Your task to perform on an android device: What's the weather like in Sydney? Image 0: 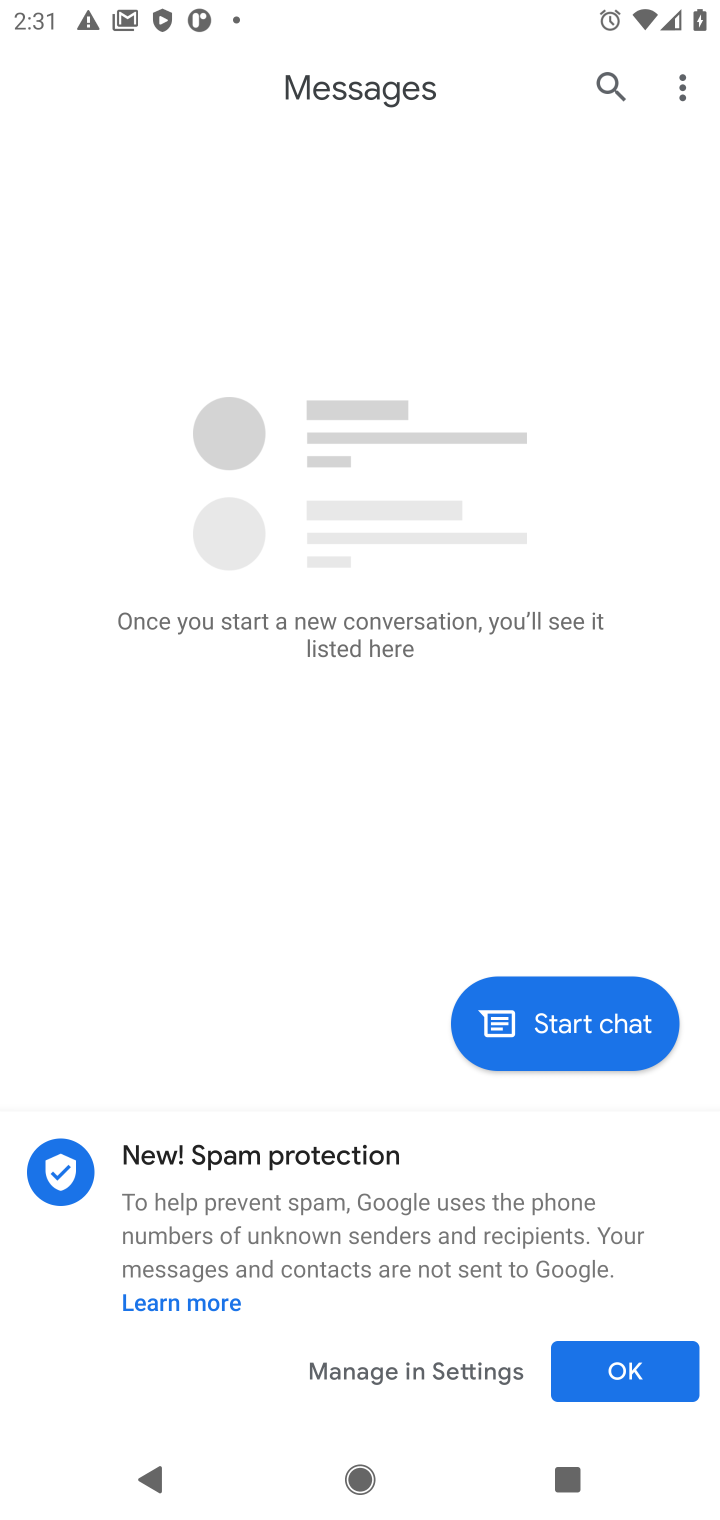
Step 0: press home button
Your task to perform on an android device: What's the weather like in Sydney? Image 1: 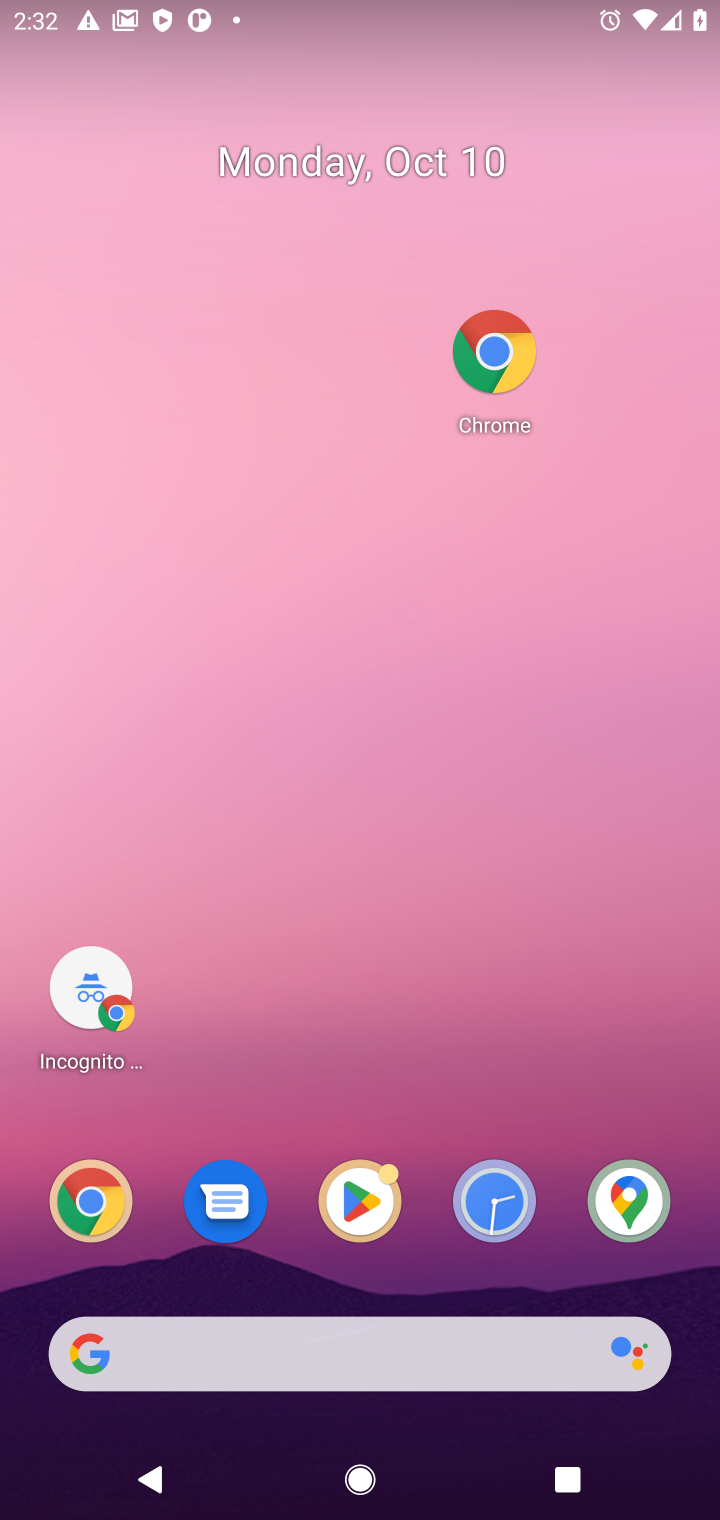
Step 1: click (270, 1347)
Your task to perform on an android device: What's the weather like in Sydney? Image 2: 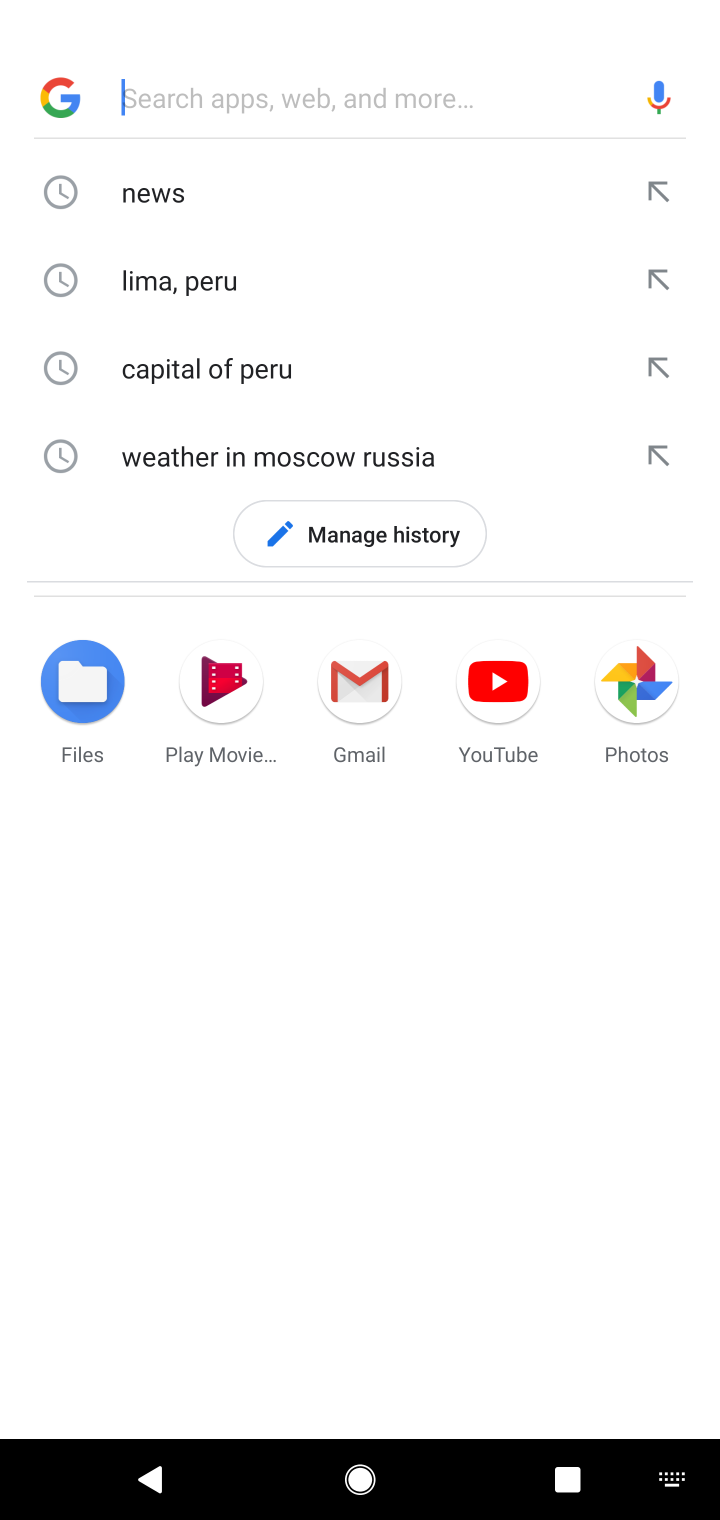
Step 2: click (219, 58)
Your task to perform on an android device: What's the weather like in Sydney? Image 3: 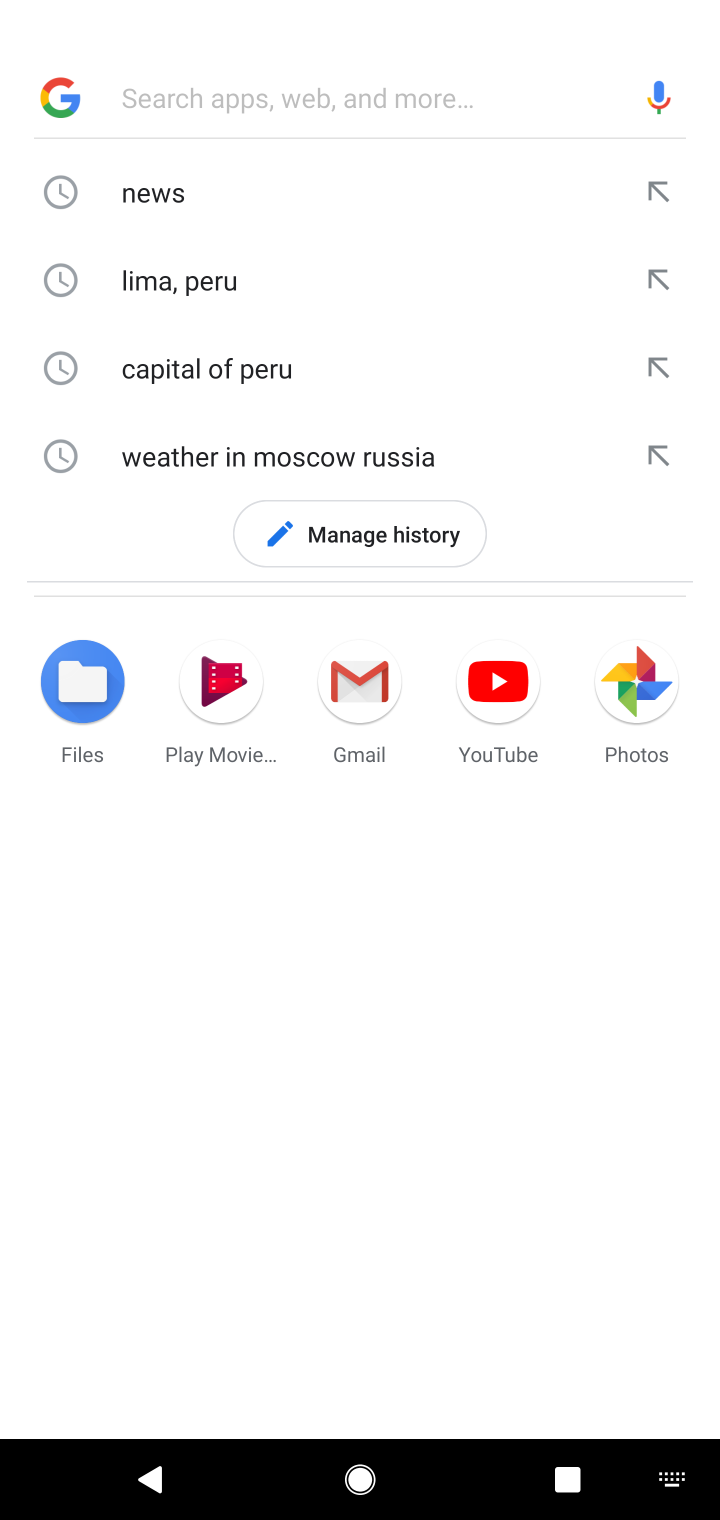
Step 3: type "sydney"
Your task to perform on an android device: What's the weather like in Sydney? Image 4: 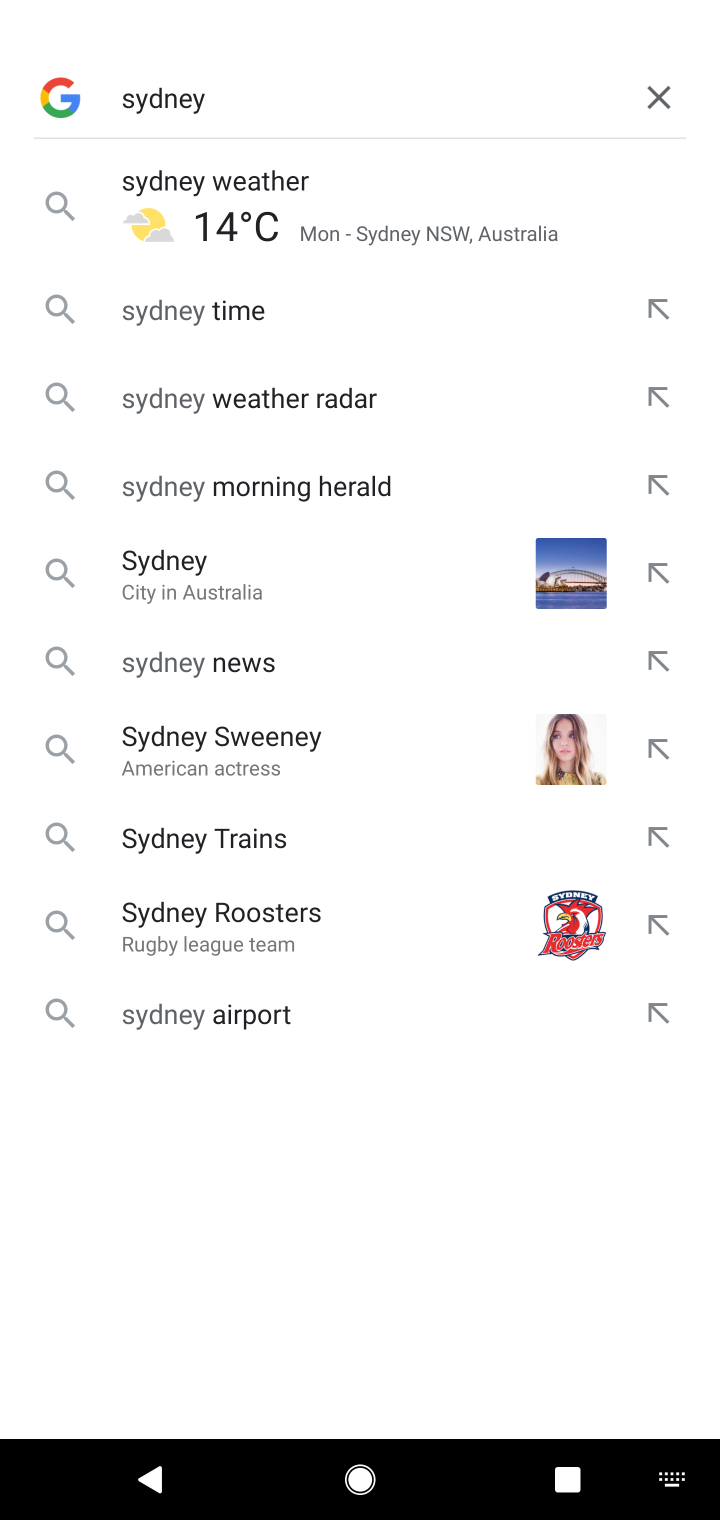
Step 4: click (270, 233)
Your task to perform on an android device: What's the weather like in Sydney? Image 5: 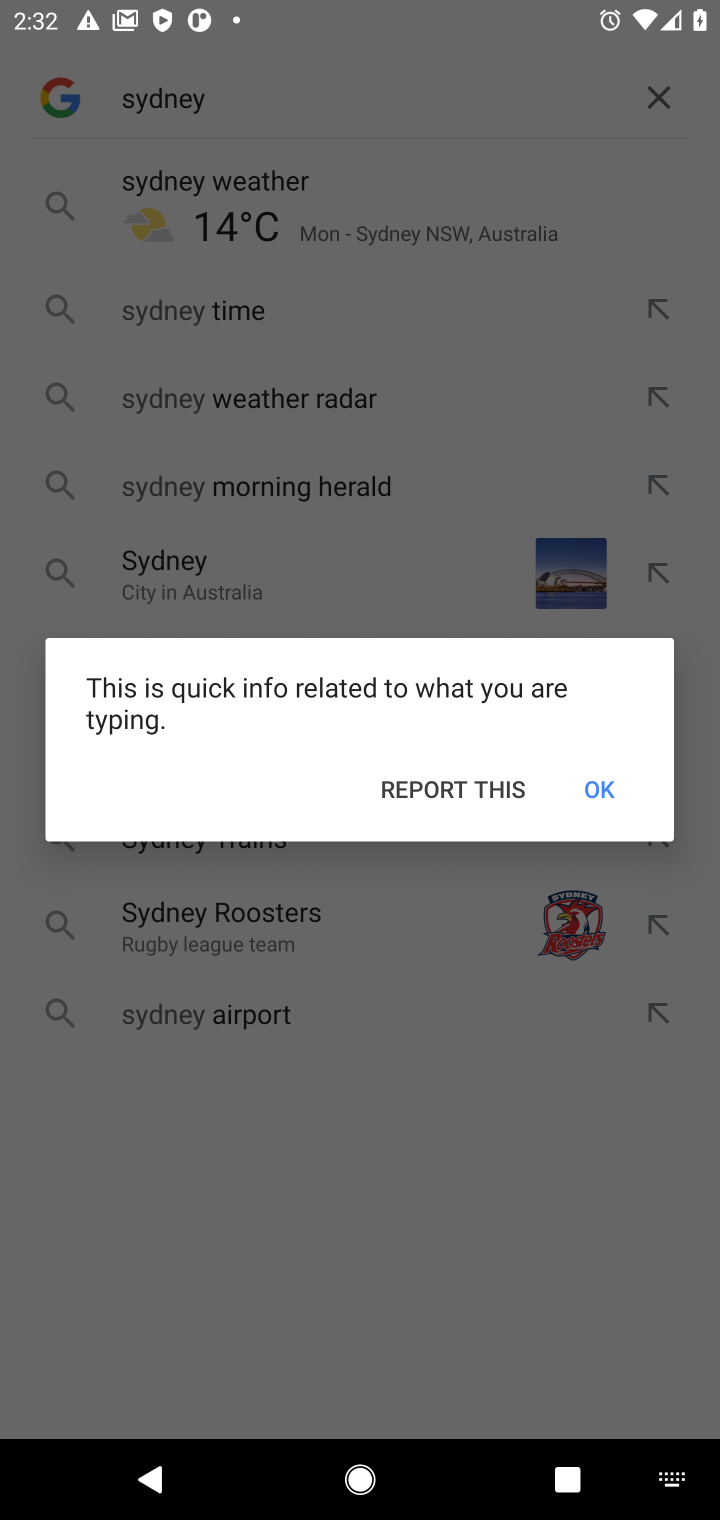
Step 5: click (608, 791)
Your task to perform on an android device: What's the weather like in Sydney? Image 6: 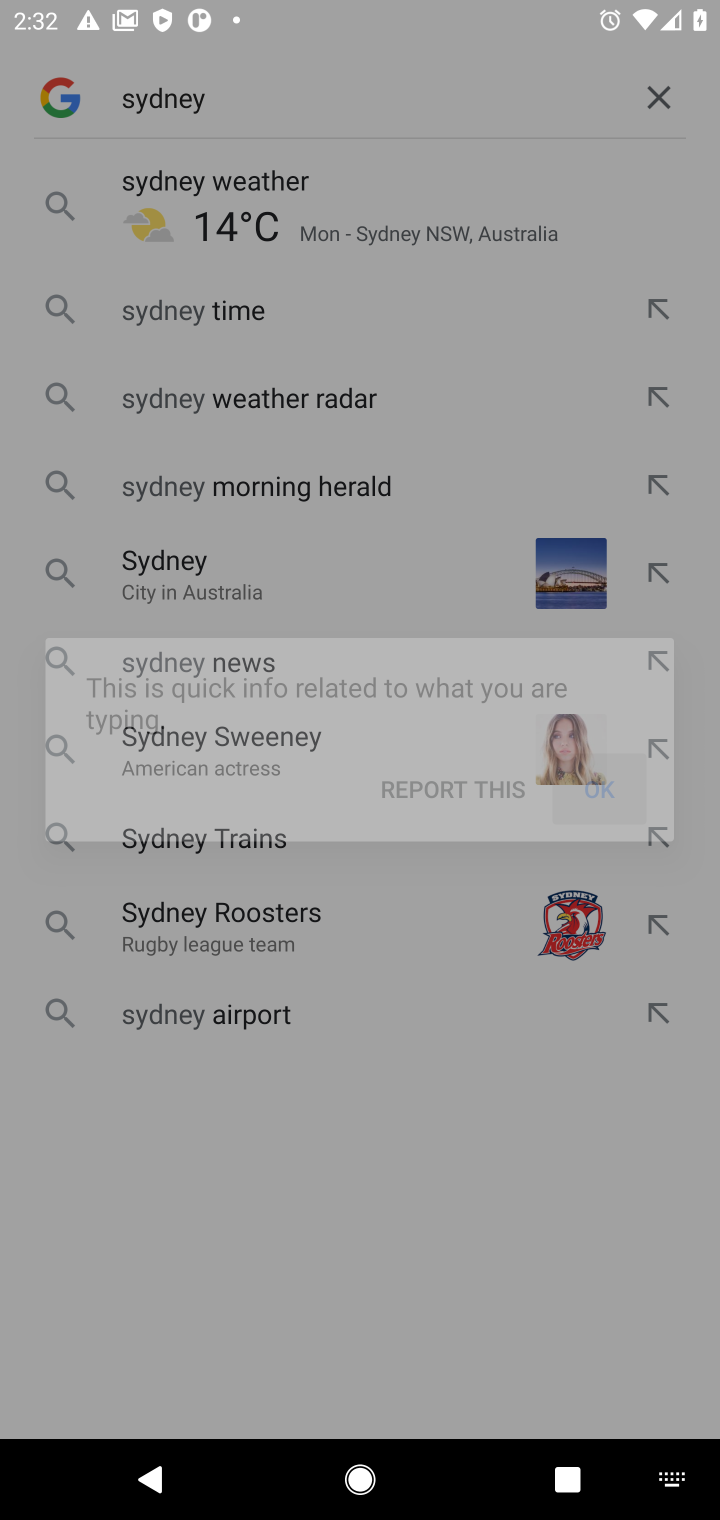
Step 6: click (234, 94)
Your task to perform on an android device: What's the weather like in Sydney? Image 7: 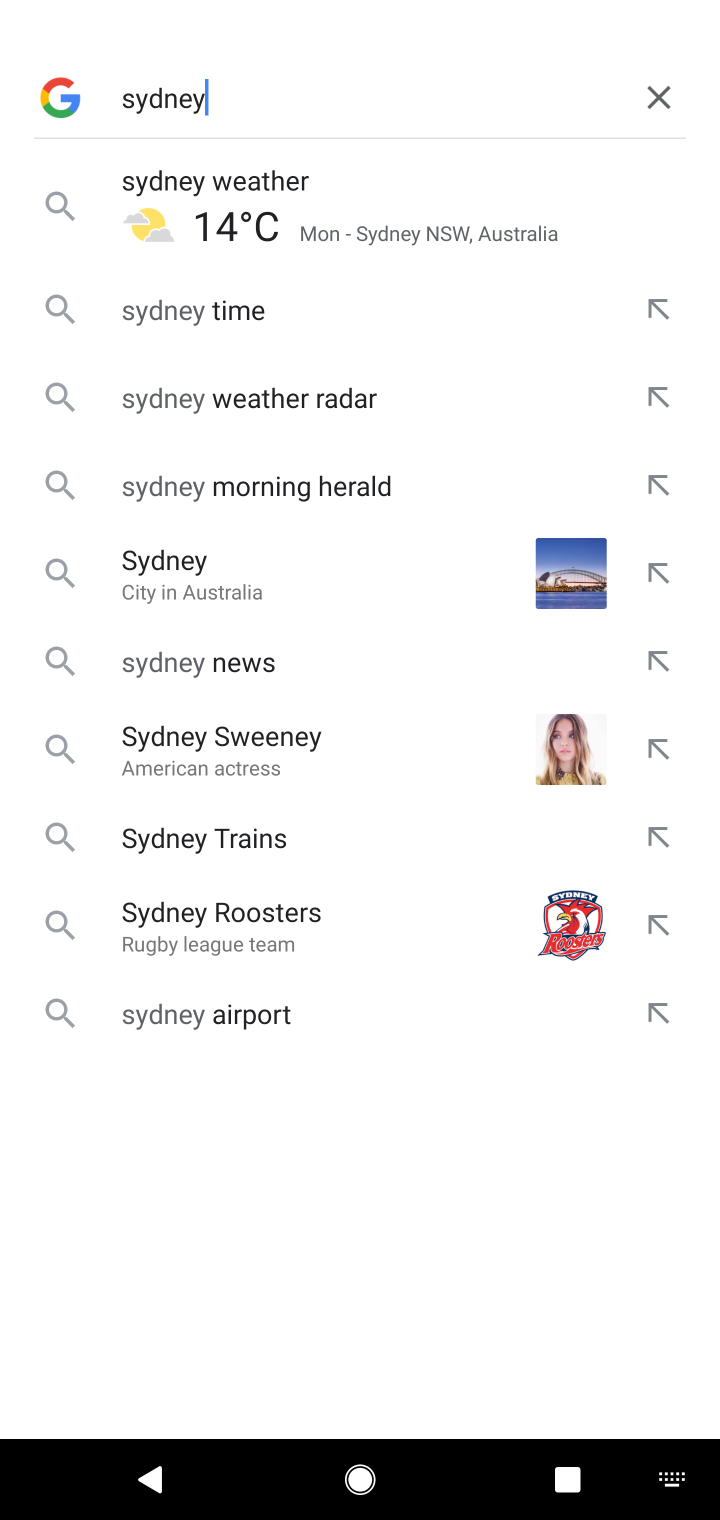
Step 7: type " weather"
Your task to perform on an android device: What's the weather like in Sydney? Image 8: 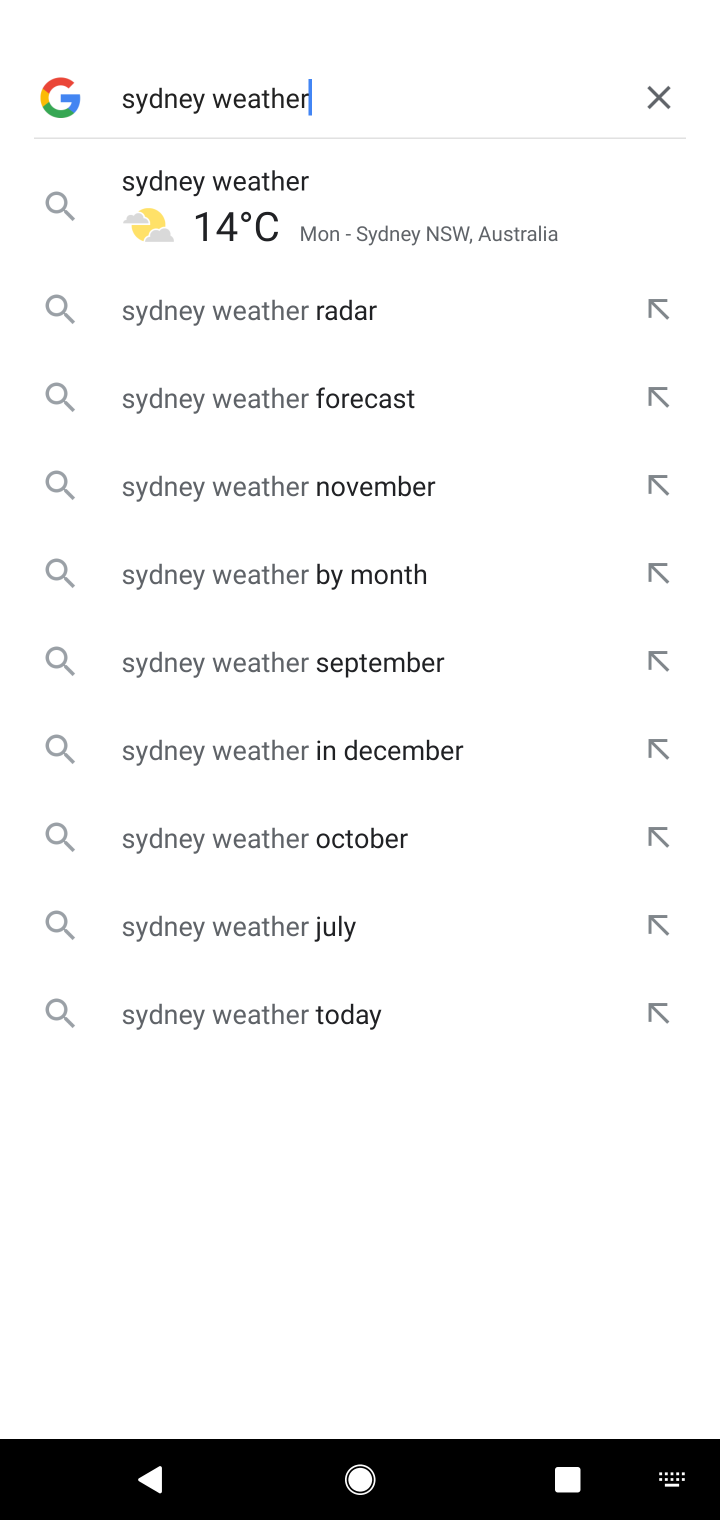
Step 8: click (230, 239)
Your task to perform on an android device: What's the weather like in Sydney? Image 9: 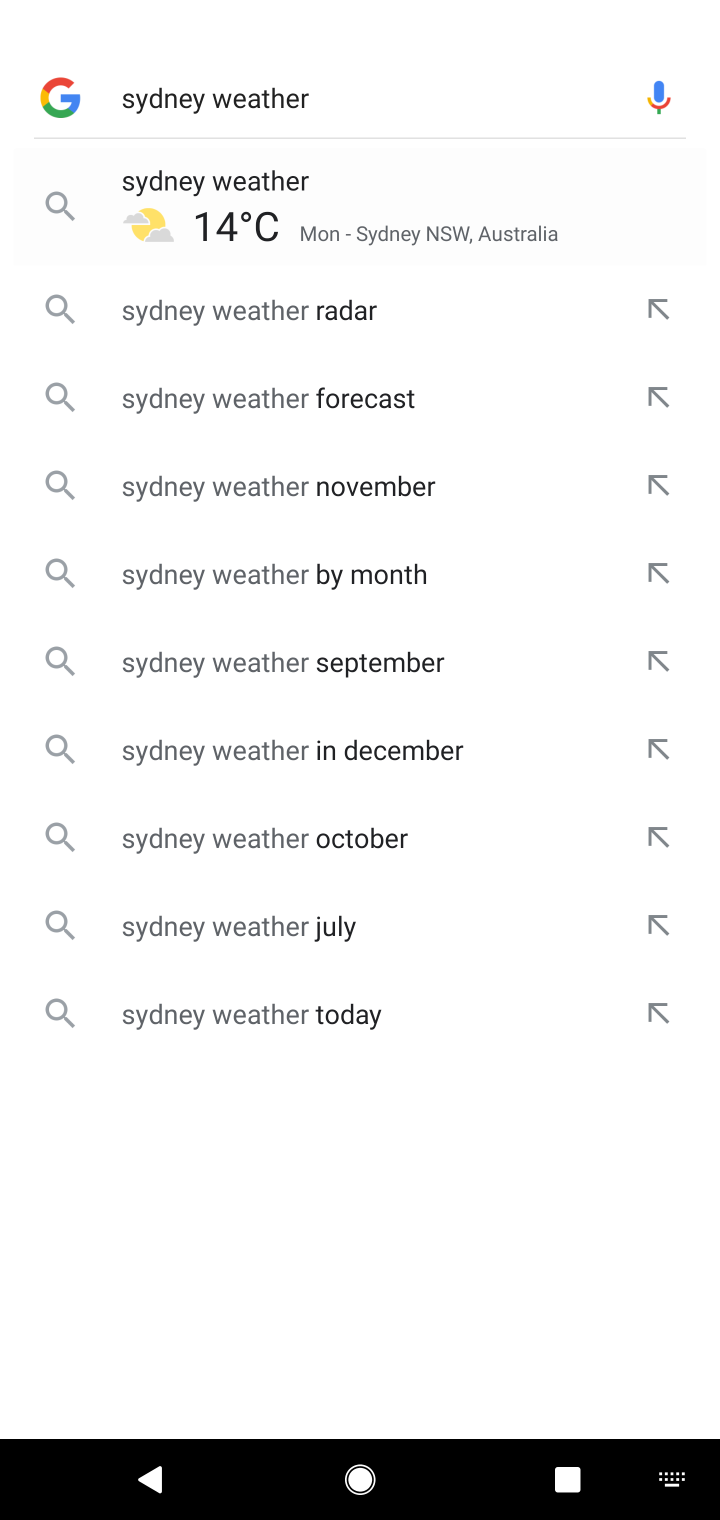
Step 9: task complete